Your task to perform on an android device: toggle show notifications on the lock screen Image 0: 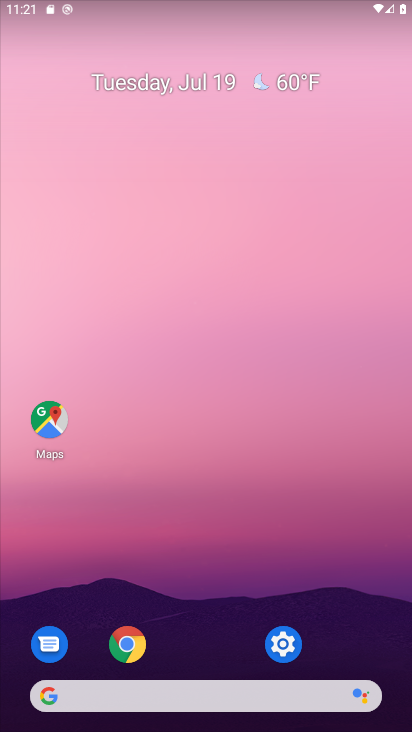
Step 0: press home button
Your task to perform on an android device: toggle show notifications on the lock screen Image 1: 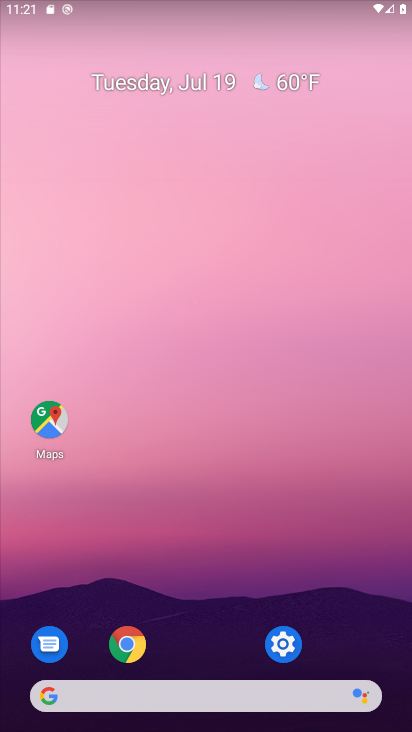
Step 1: click (283, 657)
Your task to perform on an android device: toggle show notifications on the lock screen Image 2: 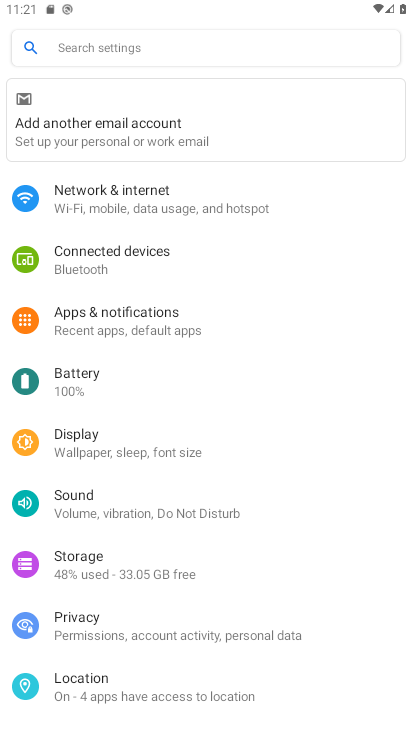
Step 2: click (152, 42)
Your task to perform on an android device: toggle show notifications on the lock screen Image 3: 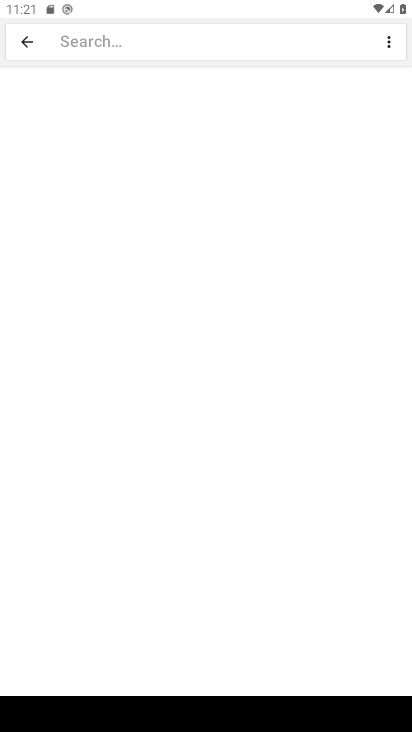
Step 3: drag from (375, 722) to (375, 574)
Your task to perform on an android device: toggle show notifications on the lock screen Image 4: 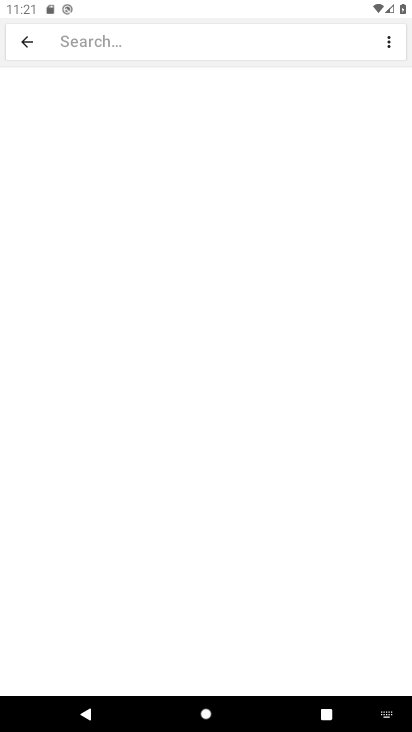
Step 4: click (391, 709)
Your task to perform on an android device: toggle show notifications on the lock screen Image 5: 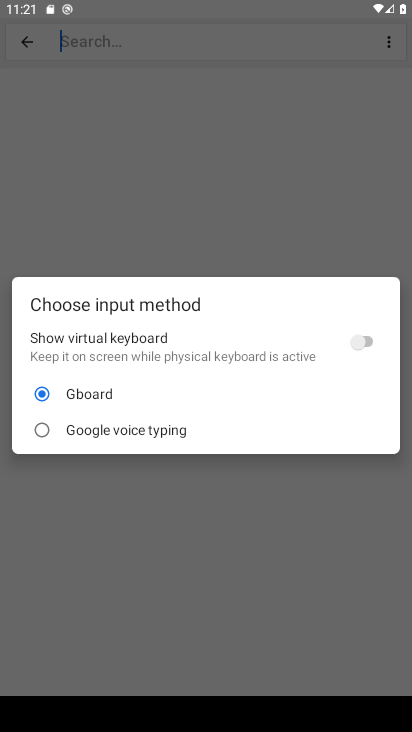
Step 5: click (365, 347)
Your task to perform on an android device: toggle show notifications on the lock screen Image 6: 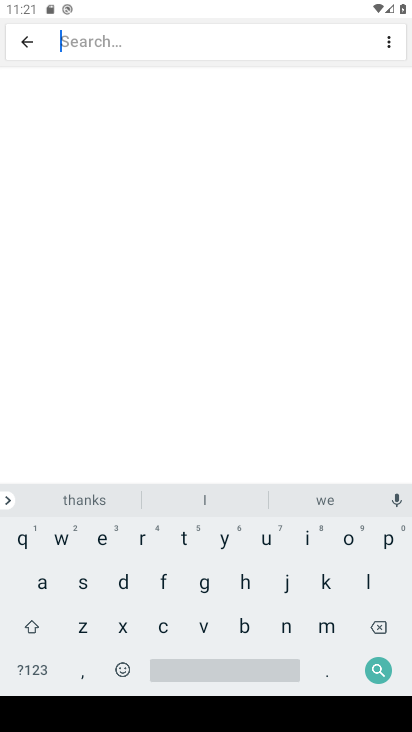
Step 6: click (280, 629)
Your task to perform on an android device: toggle show notifications on the lock screen Image 7: 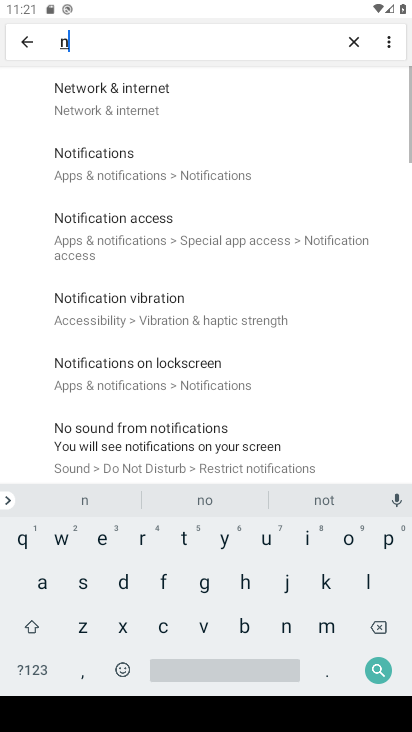
Step 7: click (349, 536)
Your task to perform on an android device: toggle show notifications on the lock screen Image 8: 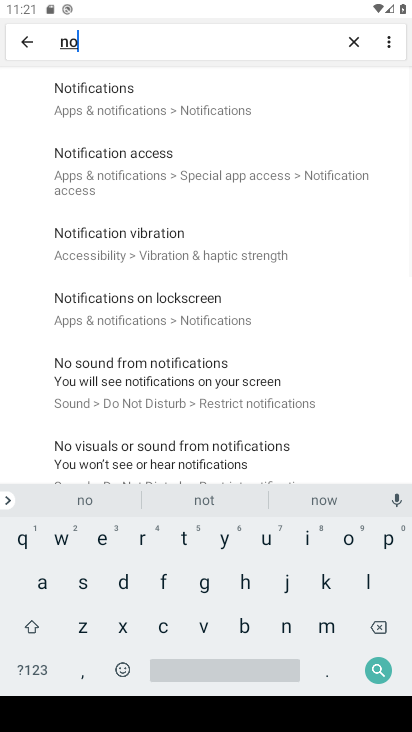
Step 8: click (136, 94)
Your task to perform on an android device: toggle show notifications on the lock screen Image 9: 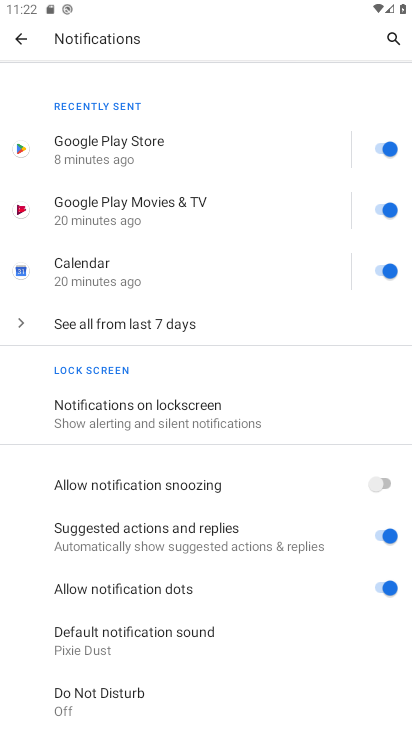
Step 9: click (223, 411)
Your task to perform on an android device: toggle show notifications on the lock screen Image 10: 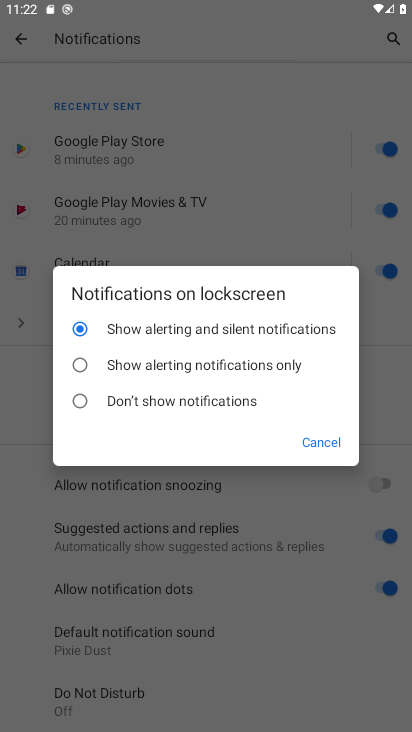
Step 10: task complete